Your task to perform on an android device: Open calendar and show me the second week of next month Image 0: 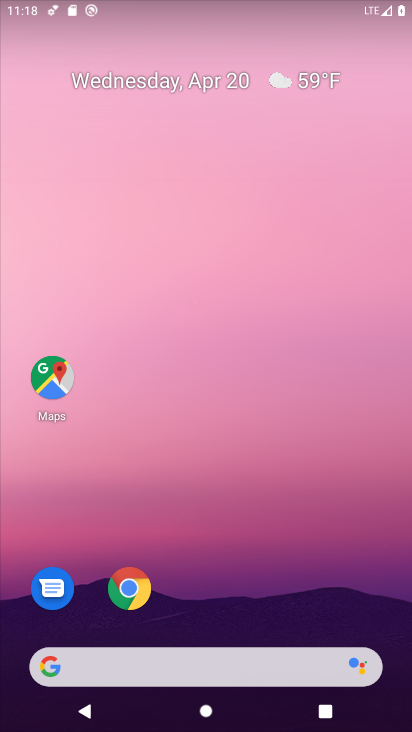
Step 0: drag from (216, 607) to (189, 2)
Your task to perform on an android device: Open calendar and show me the second week of next month Image 1: 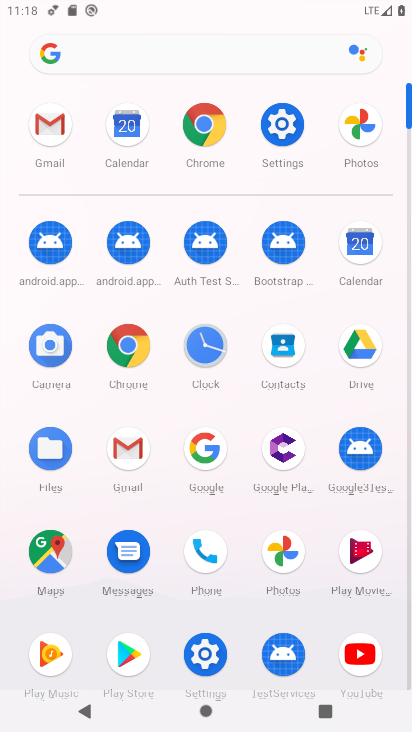
Step 1: click (357, 250)
Your task to perform on an android device: Open calendar and show me the second week of next month Image 2: 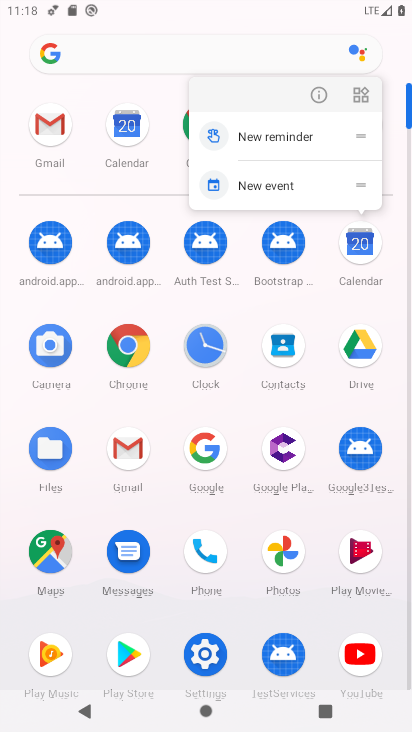
Step 2: click (361, 237)
Your task to perform on an android device: Open calendar and show me the second week of next month Image 3: 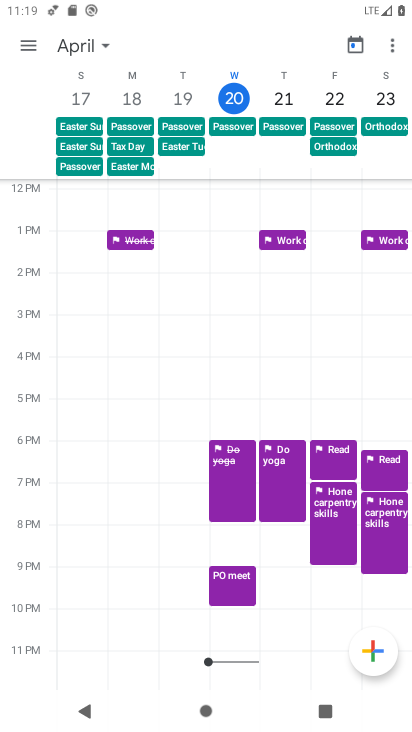
Step 3: click (108, 47)
Your task to perform on an android device: Open calendar and show me the second week of next month Image 4: 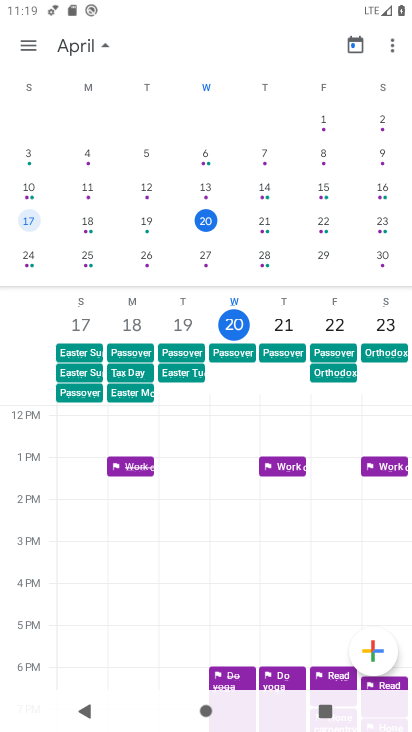
Step 4: drag from (373, 189) to (3, 176)
Your task to perform on an android device: Open calendar and show me the second week of next month Image 5: 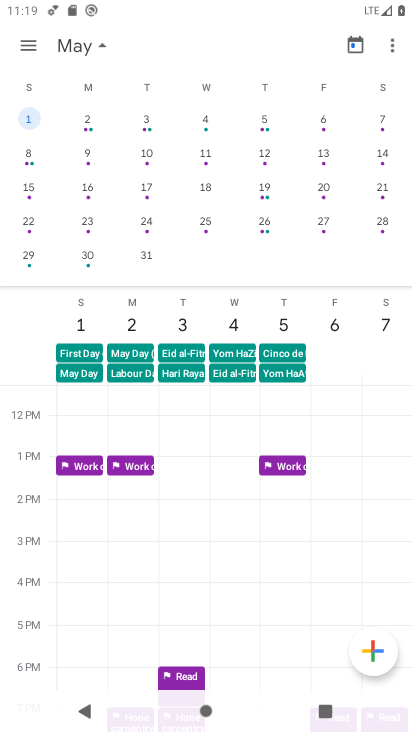
Step 5: click (87, 155)
Your task to perform on an android device: Open calendar and show me the second week of next month Image 6: 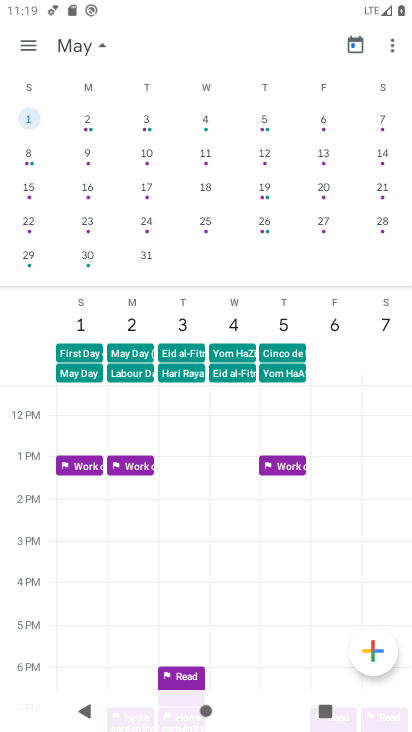
Step 6: click (91, 153)
Your task to perform on an android device: Open calendar and show me the second week of next month Image 7: 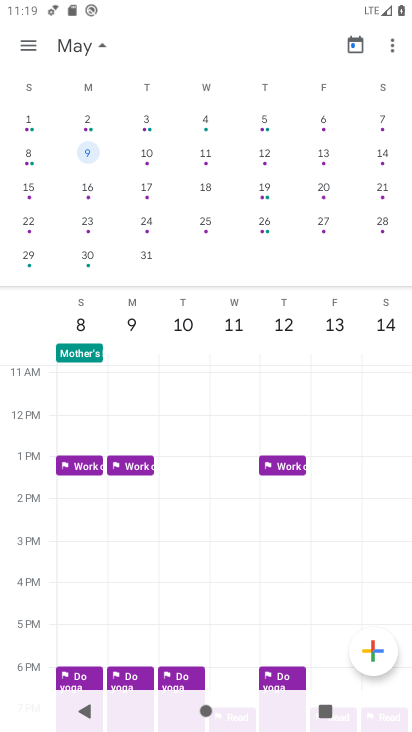
Step 7: task complete